Your task to perform on an android device: snooze an email in the gmail app Image 0: 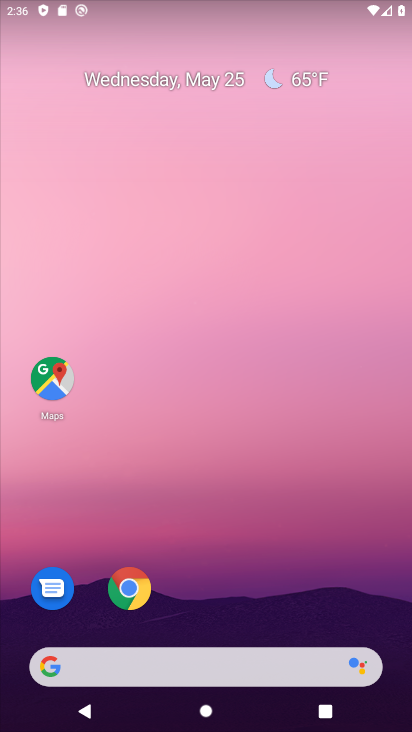
Step 0: drag from (201, 614) to (250, 333)
Your task to perform on an android device: snooze an email in the gmail app Image 1: 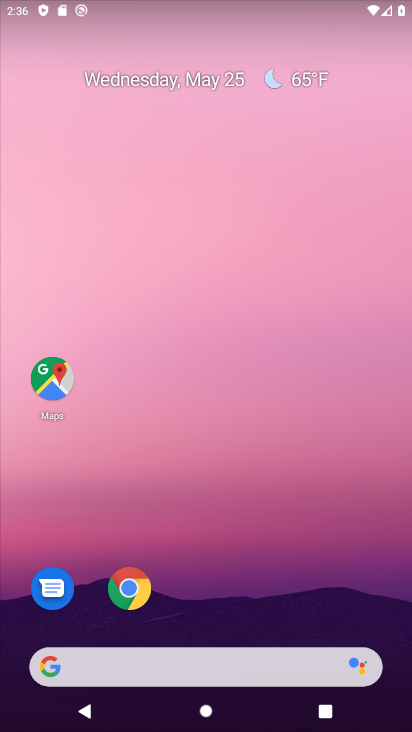
Step 1: drag from (231, 589) to (254, 221)
Your task to perform on an android device: snooze an email in the gmail app Image 2: 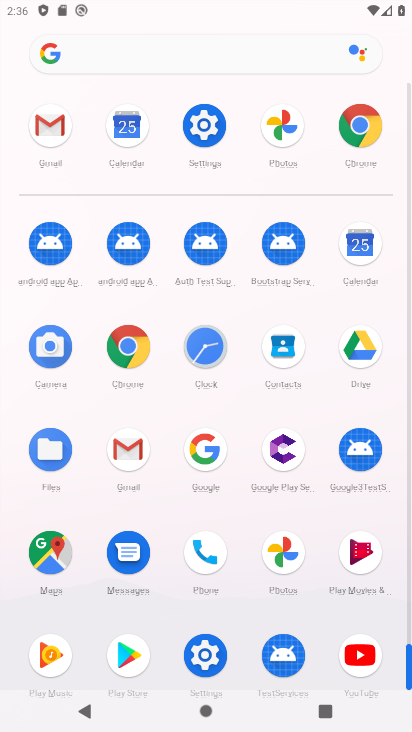
Step 2: click (136, 452)
Your task to perform on an android device: snooze an email in the gmail app Image 3: 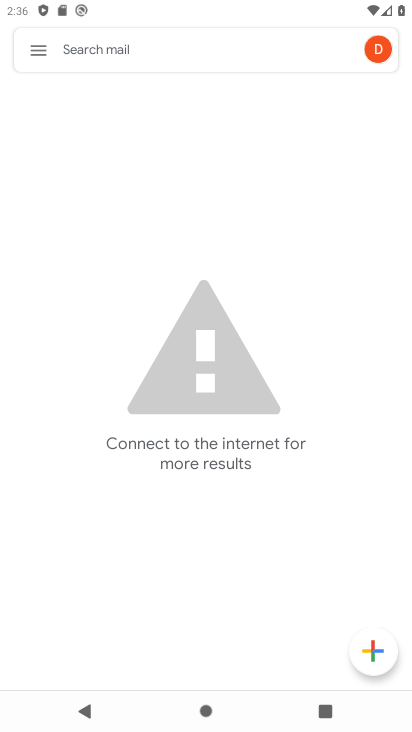
Step 3: click (39, 53)
Your task to perform on an android device: snooze an email in the gmail app Image 4: 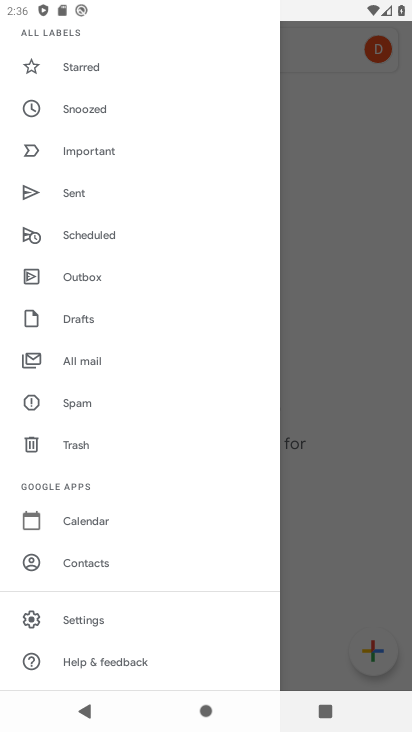
Step 4: click (90, 357)
Your task to perform on an android device: snooze an email in the gmail app Image 5: 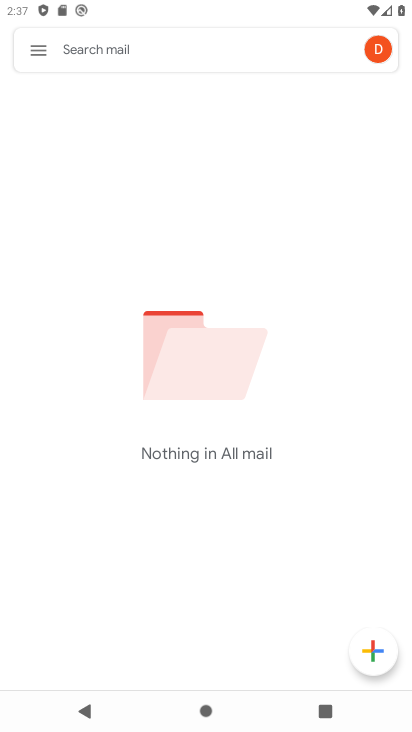
Step 5: task complete